Your task to perform on an android device: turn on sleep mode Image 0: 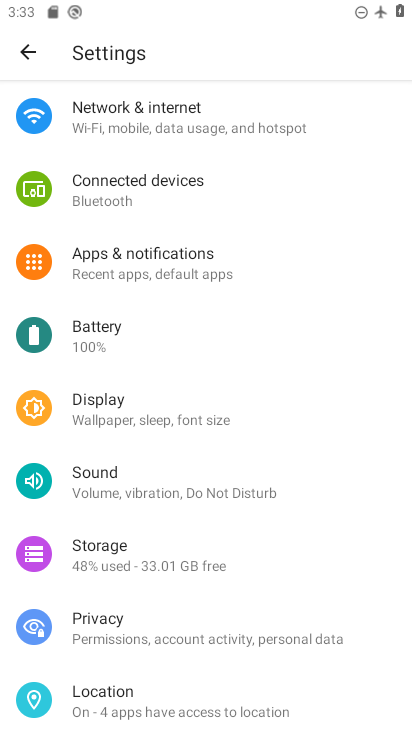
Step 0: task impossible